Your task to perform on an android device: Go to sound settings Image 0: 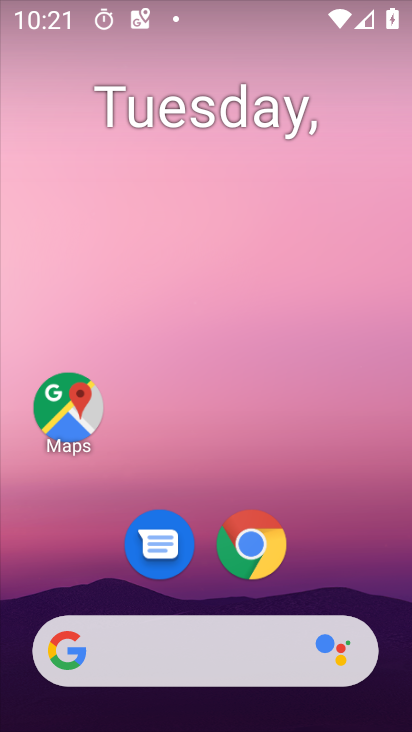
Step 0: drag from (388, 598) to (300, 150)
Your task to perform on an android device: Go to sound settings Image 1: 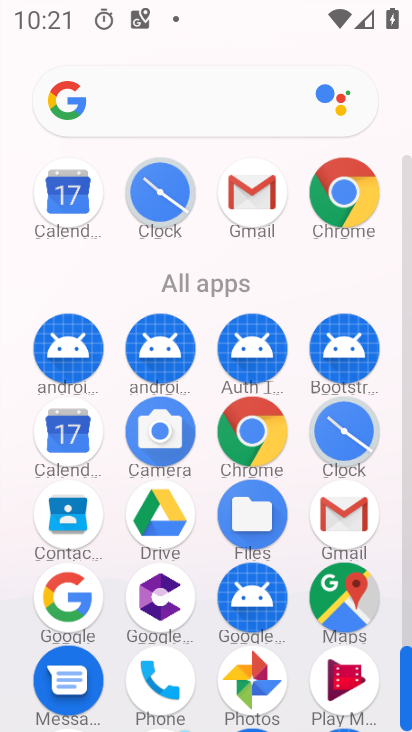
Step 1: drag from (393, 626) to (381, 446)
Your task to perform on an android device: Go to sound settings Image 2: 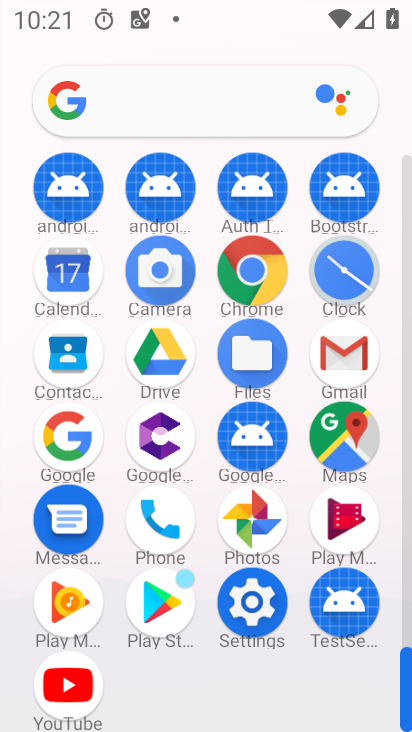
Step 2: click (256, 612)
Your task to perform on an android device: Go to sound settings Image 3: 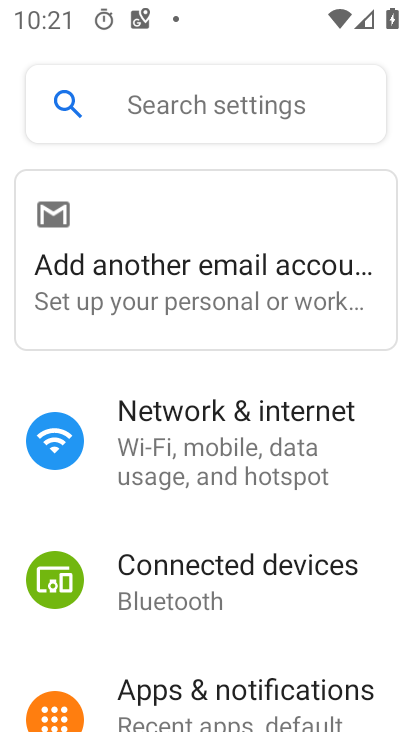
Step 3: drag from (290, 661) to (280, 199)
Your task to perform on an android device: Go to sound settings Image 4: 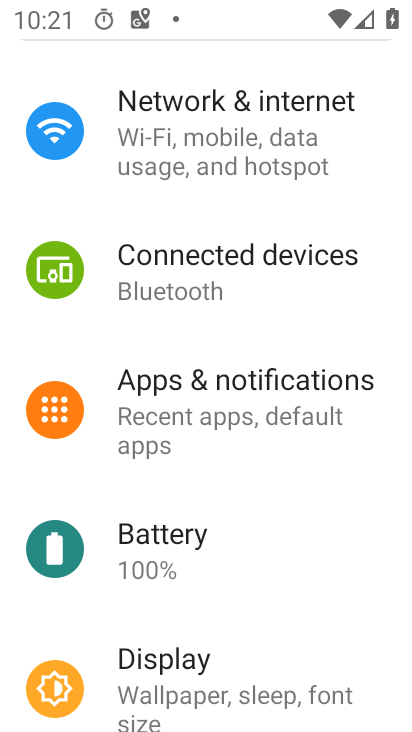
Step 4: drag from (339, 625) to (310, 214)
Your task to perform on an android device: Go to sound settings Image 5: 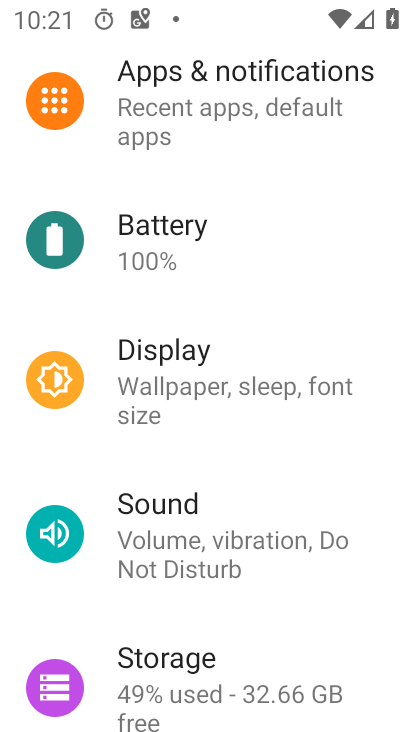
Step 5: click (320, 558)
Your task to perform on an android device: Go to sound settings Image 6: 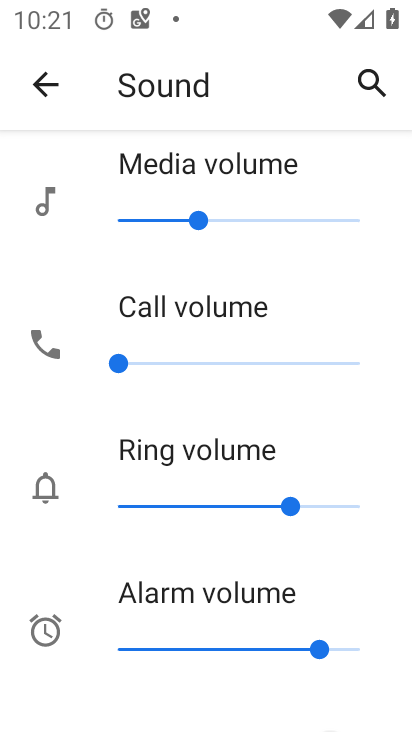
Step 6: task complete